Your task to perform on an android device: change text size in settings app Image 0: 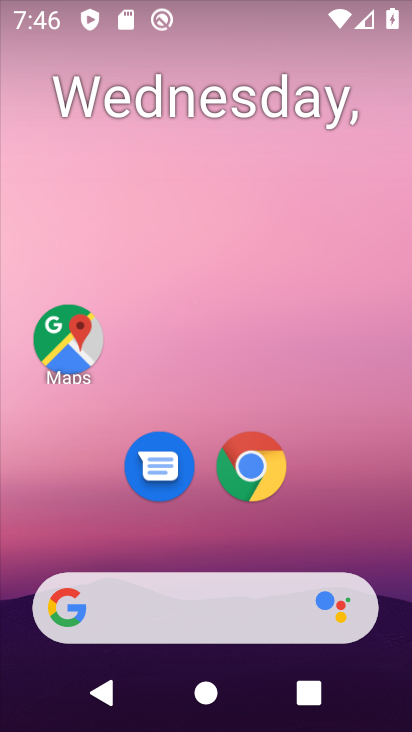
Step 0: drag from (223, 516) to (217, 78)
Your task to perform on an android device: change text size in settings app Image 1: 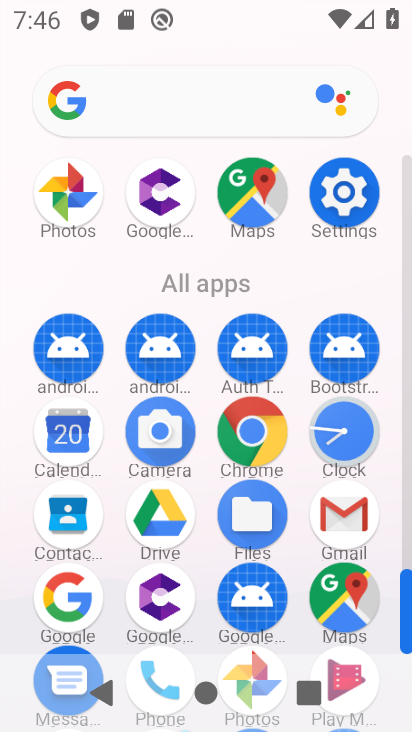
Step 1: click (334, 202)
Your task to perform on an android device: change text size in settings app Image 2: 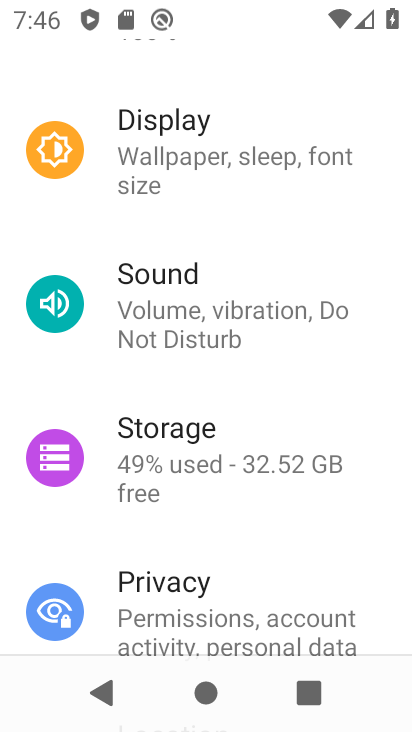
Step 2: click (158, 167)
Your task to perform on an android device: change text size in settings app Image 3: 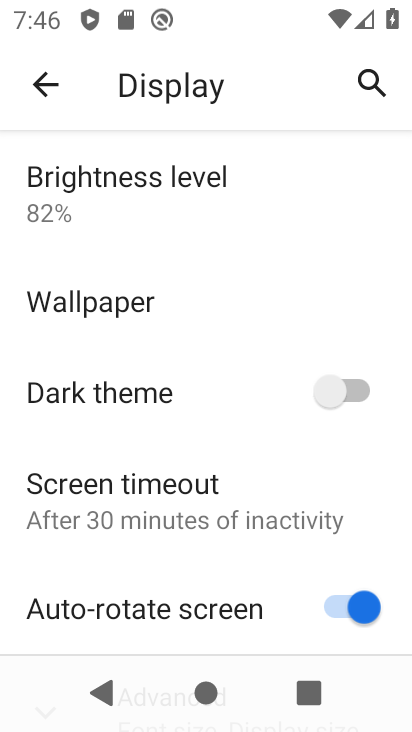
Step 3: drag from (281, 561) to (283, 191)
Your task to perform on an android device: change text size in settings app Image 4: 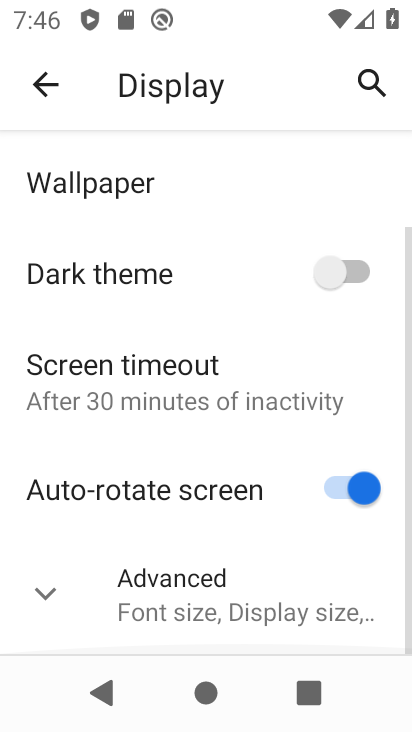
Step 4: click (262, 632)
Your task to perform on an android device: change text size in settings app Image 5: 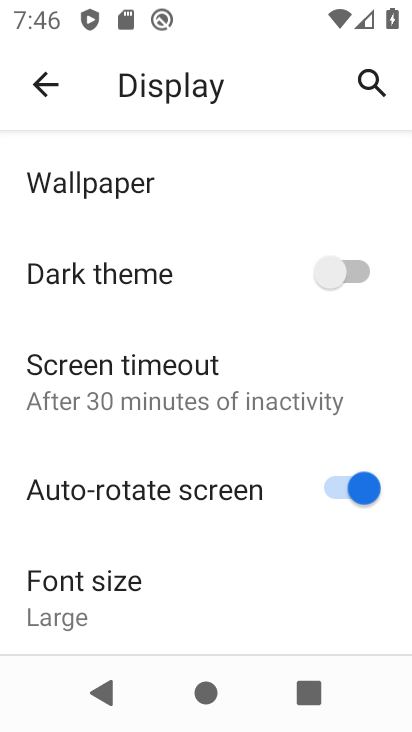
Step 5: click (105, 608)
Your task to perform on an android device: change text size in settings app Image 6: 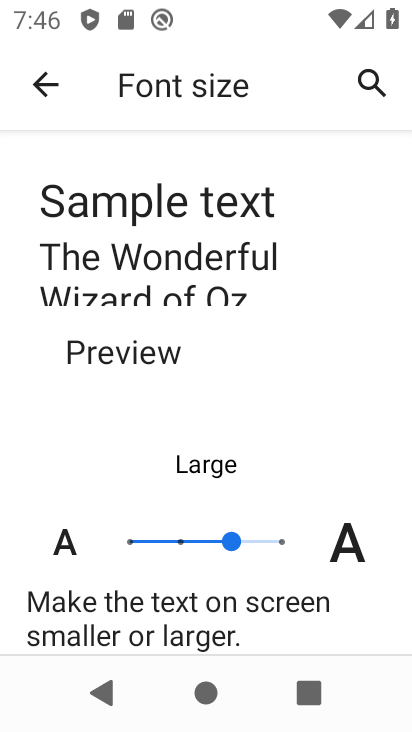
Step 6: click (133, 537)
Your task to perform on an android device: change text size in settings app Image 7: 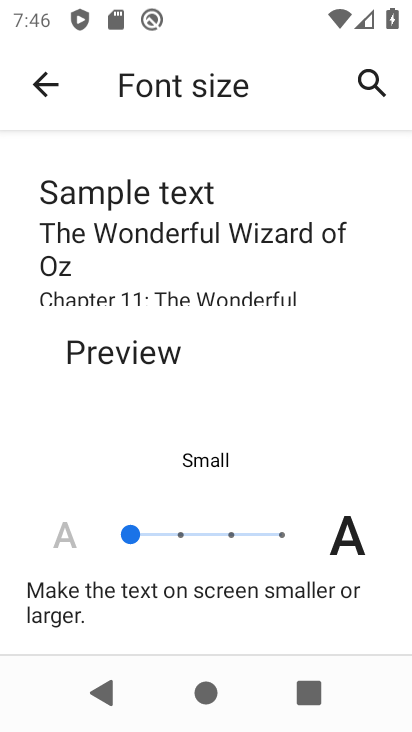
Step 7: task complete